Your task to perform on an android device: remove spam from my inbox in the gmail app Image 0: 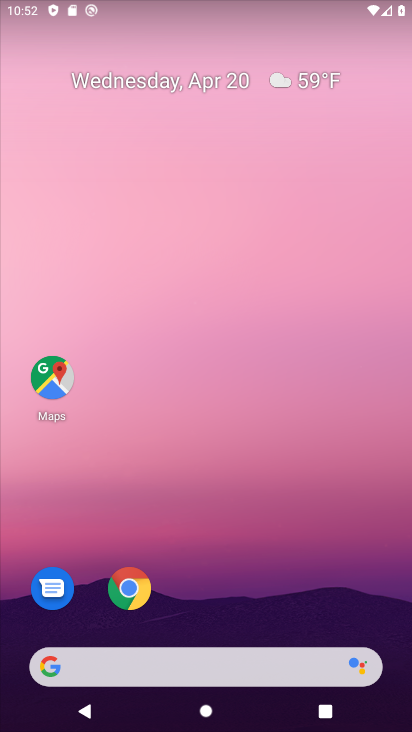
Step 0: drag from (236, 356) to (236, 53)
Your task to perform on an android device: remove spam from my inbox in the gmail app Image 1: 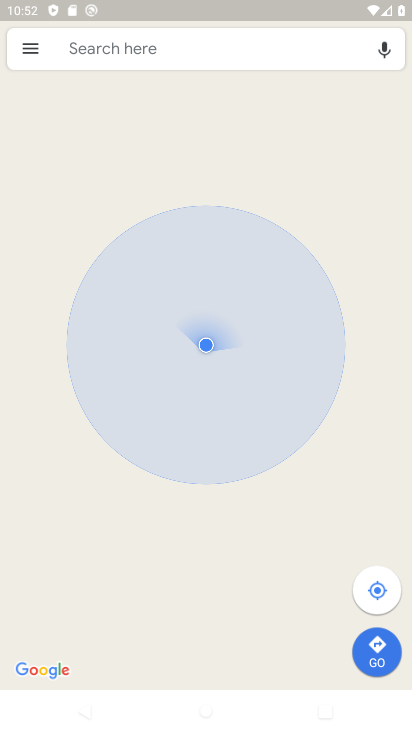
Step 1: press home button
Your task to perform on an android device: remove spam from my inbox in the gmail app Image 2: 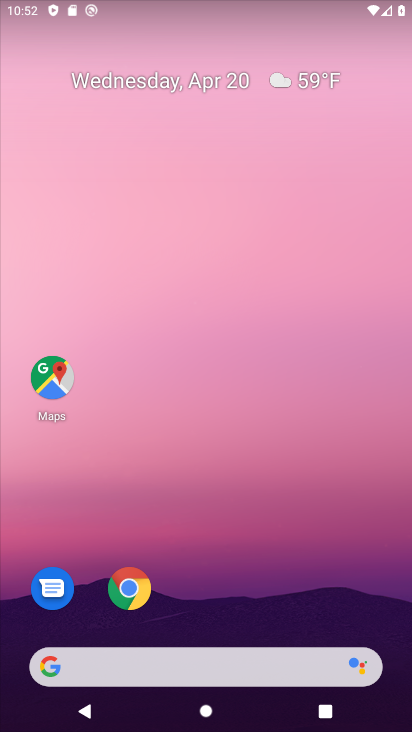
Step 2: drag from (232, 683) to (223, 156)
Your task to perform on an android device: remove spam from my inbox in the gmail app Image 3: 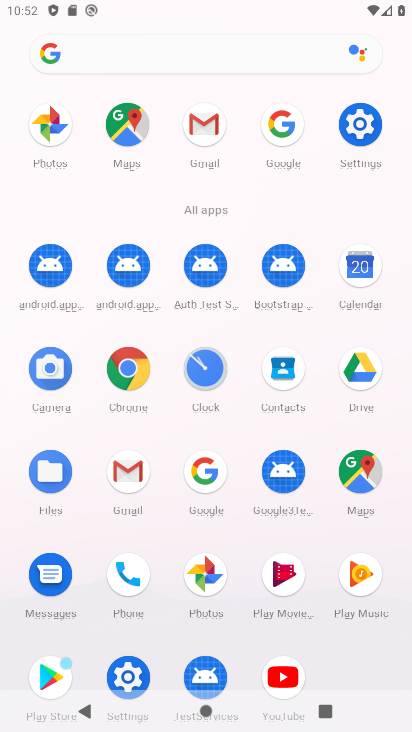
Step 3: click (129, 471)
Your task to perform on an android device: remove spam from my inbox in the gmail app Image 4: 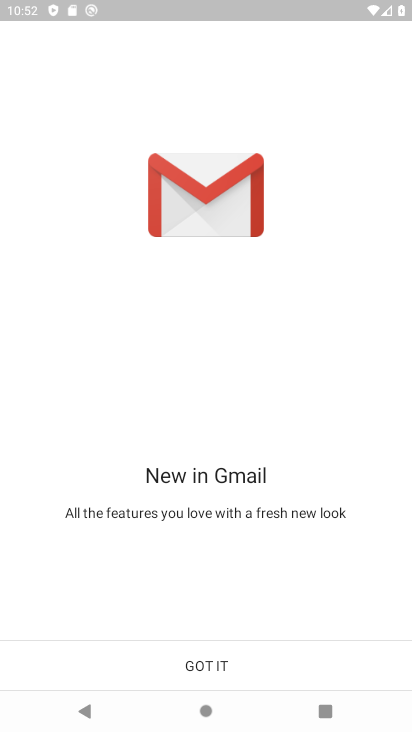
Step 4: click (211, 661)
Your task to perform on an android device: remove spam from my inbox in the gmail app Image 5: 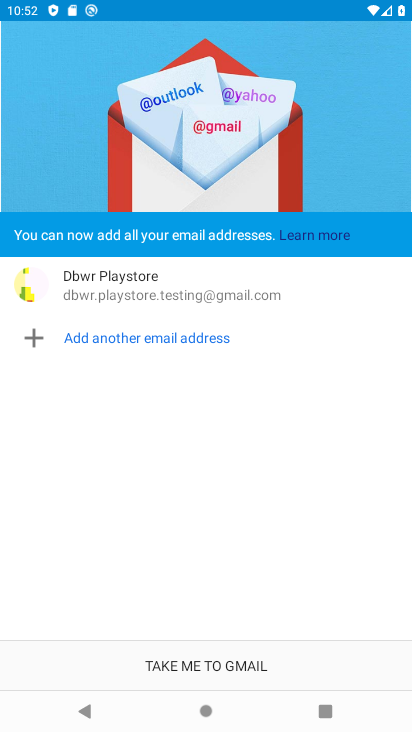
Step 5: click (201, 662)
Your task to perform on an android device: remove spam from my inbox in the gmail app Image 6: 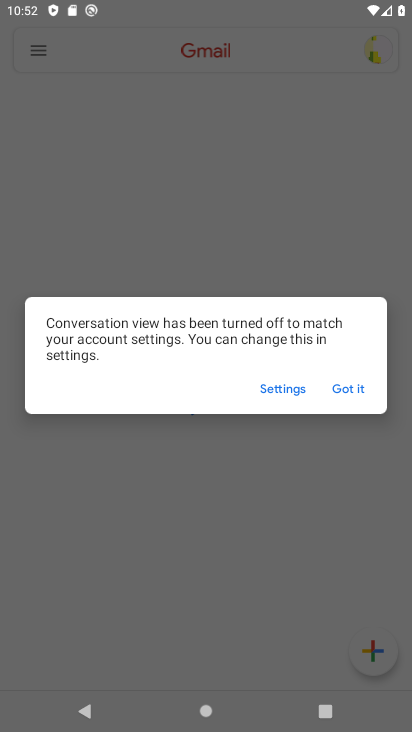
Step 6: click (346, 384)
Your task to perform on an android device: remove spam from my inbox in the gmail app Image 7: 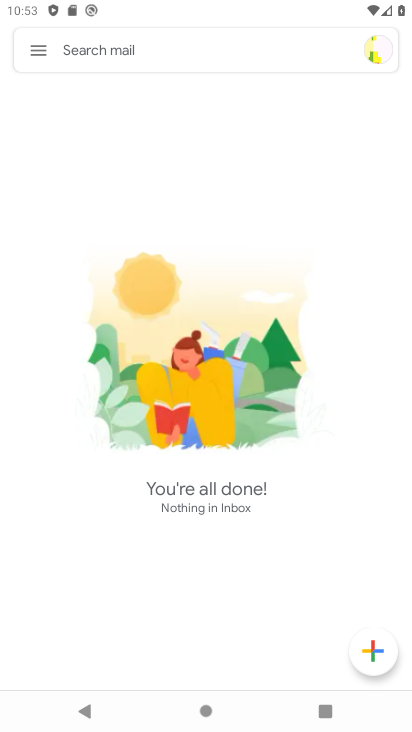
Step 7: task complete